Your task to perform on an android device: check google app version Image 0: 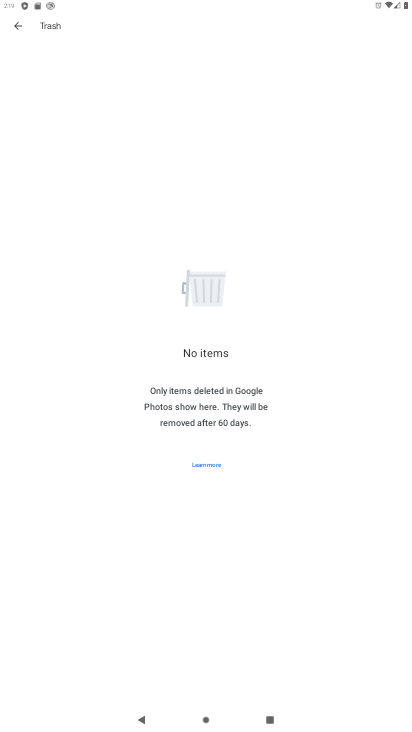
Step 0: press home button
Your task to perform on an android device: check google app version Image 1: 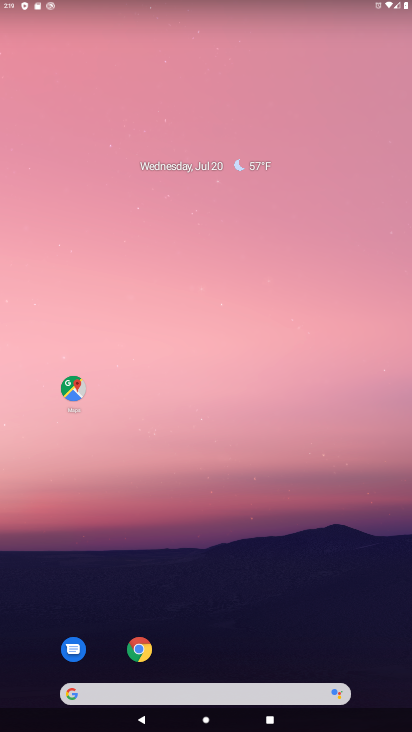
Step 1: click (269, 702)
Your task to perform on an android device: check google app version Image 2: 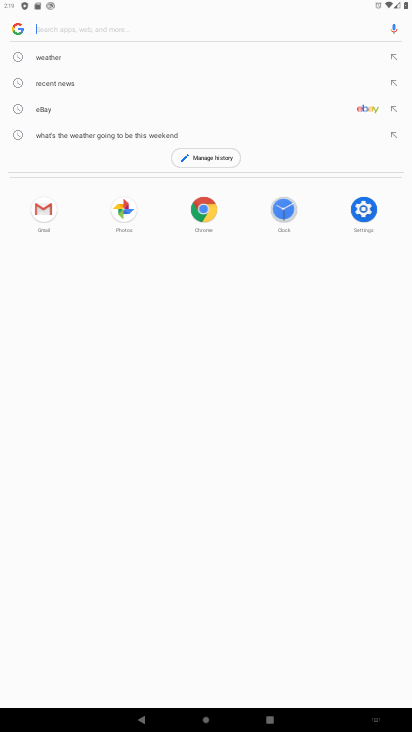
Step 2: click (8, 24)
Your task to perform on an android device: check google app version Image 3: 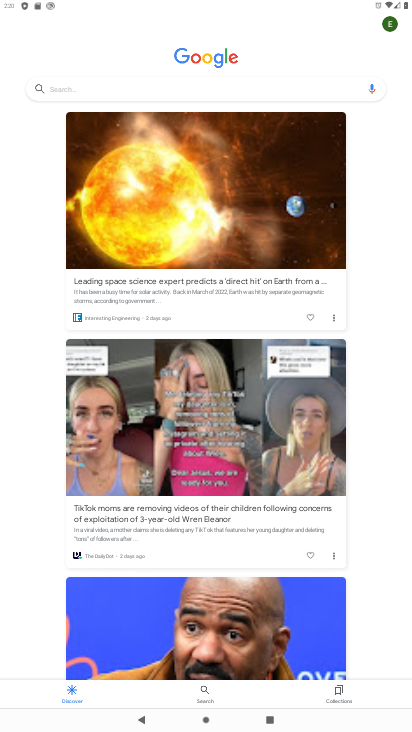
Step 3: click (390, 24)
Your task to perform on an android device: check google app version Image 4: 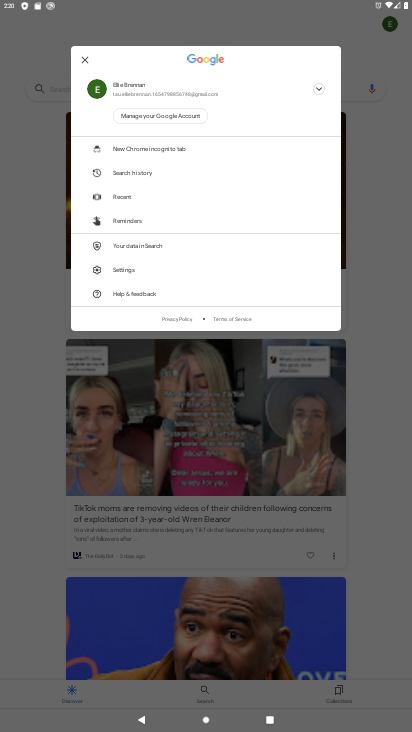
Step 4: click (139, 272)
Your task to perform on an android device: check google app version Image 5: 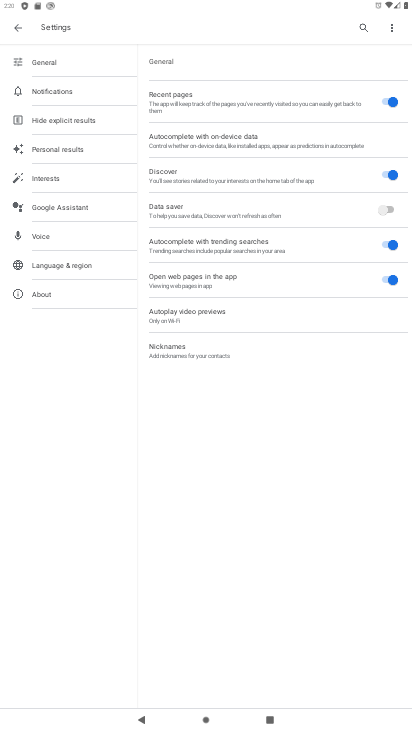
Step 5: click (71, 292)
Your task to perform on an android device: check google app version Image 6: 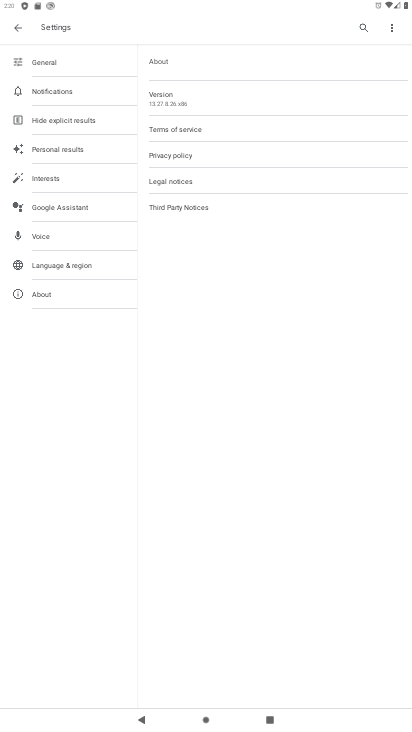
Step 6: task complete